Your task to perform on an android device: Open Google Maps and go to "Timeline" Image 0: 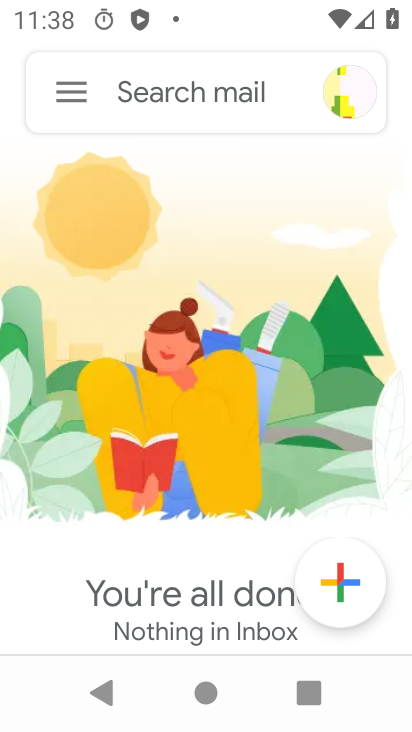
Step 0: press back button
Your task to perform on an android device: Open Google Maps and go to "Timeline" Image 1: 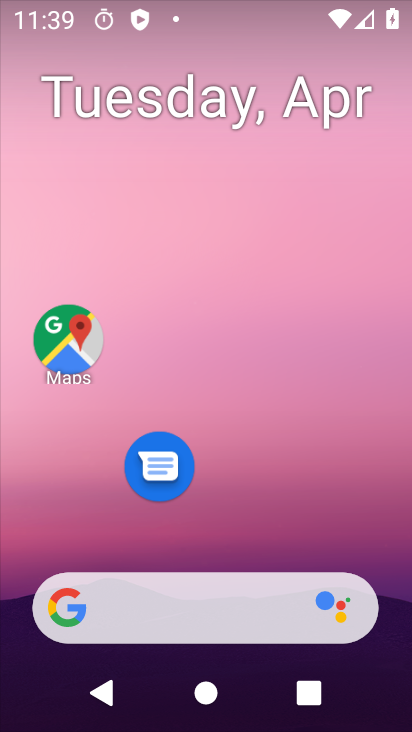
Step 1: drag from (314, 533) to (277, 141)
Your task to perform on an android device: Open Google Maps and go to "Timeline" Image 2: 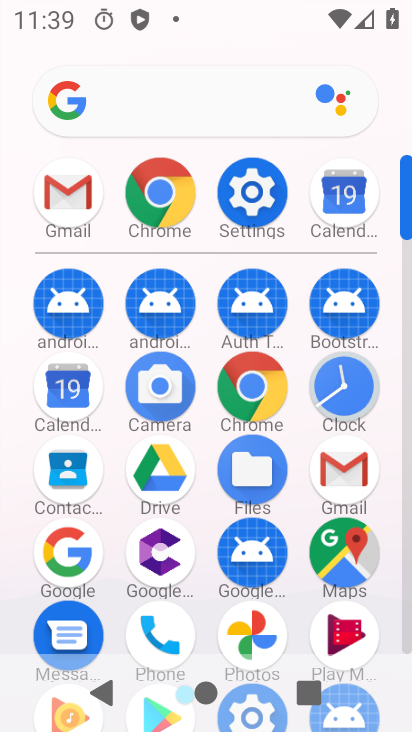
Step 2: click (347, 553)
Your task to perform on an android device: Open Google Maps and go to "Timeline" Image 3: 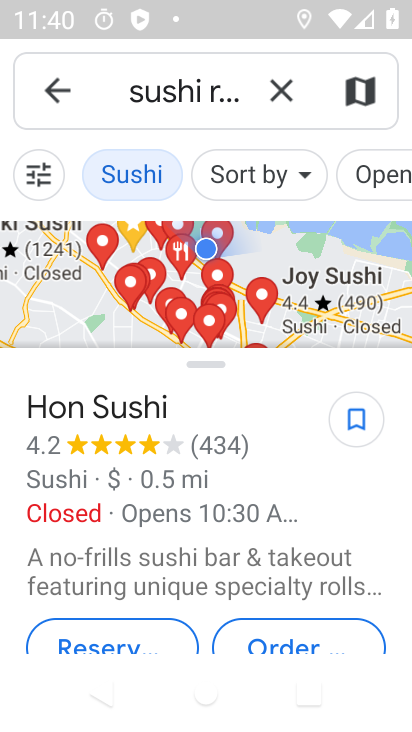
Step 3: click (58, 81)
Your task to perform on an android device: Open Google Maps and go to "Timeline" Image 4: 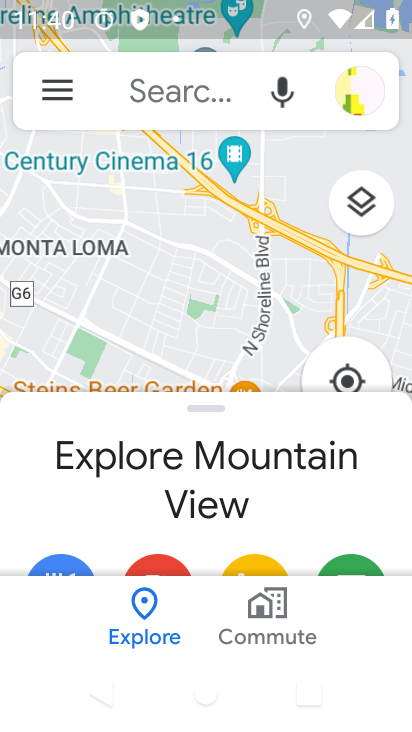
Step 4: click (58, 81)
Your task to perform on an android device: Open Google Maps and go to "Timeline" Image 5: 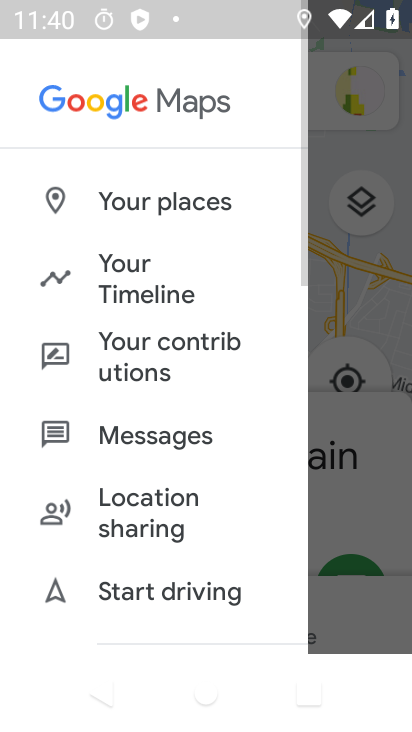
Step 5: click (127, 304)
Your task to perform on an android device: Open Google Maps and go to "Timeline" Image 6: 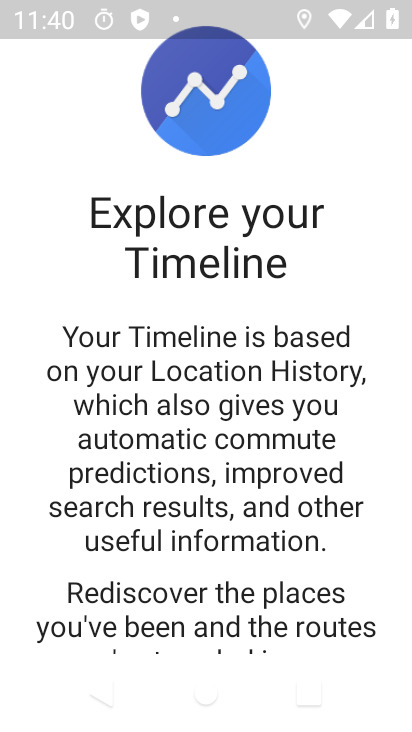
Step 6: task complete